Your task to perform on an android device: add a contact Image 0: 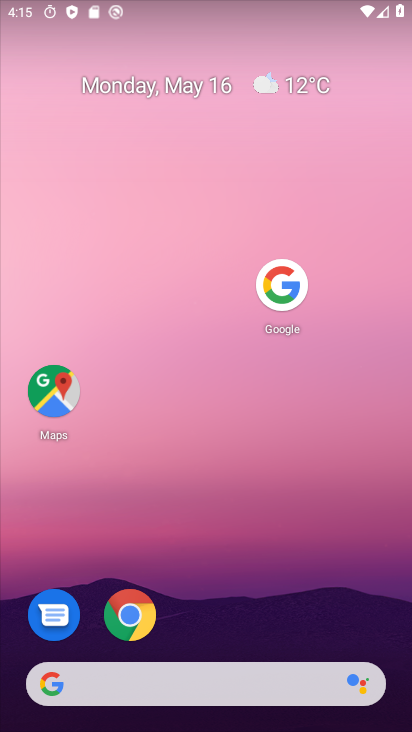
Step 0: drag from (216, 642) to (197, 67)
Your task to perform on an android device: add a contact Image 1: 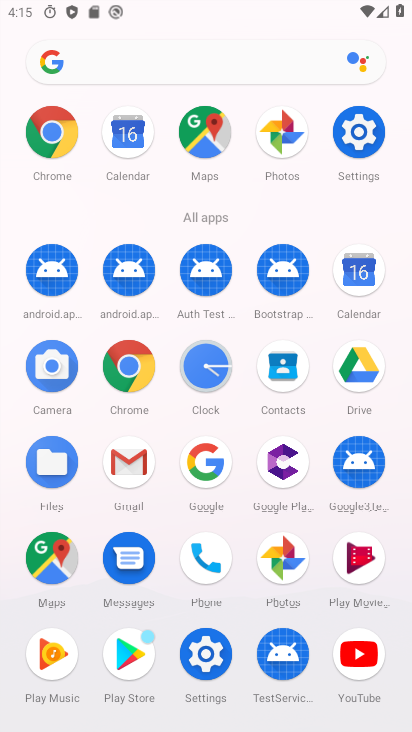
Step 1: click (210, 553)
Your task to perform on an android device: add a contact Image 2: 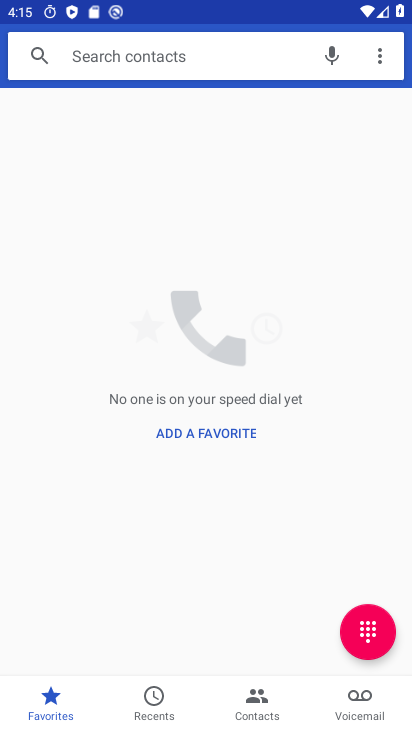
Step 2: click (245, 695)
Your task to perform on an android device: add a contact Image 3: 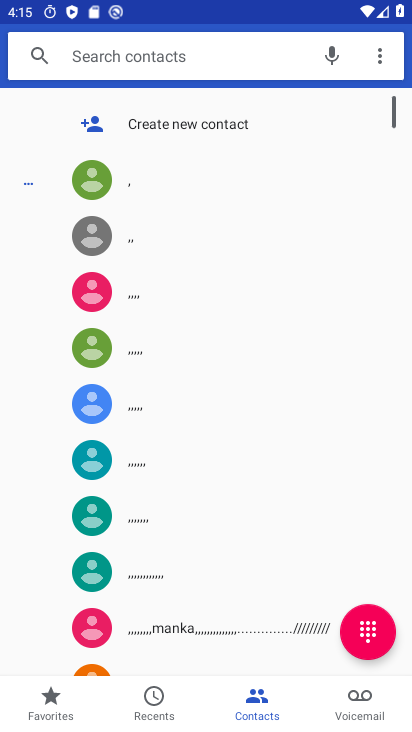
Step 3: click (116, 100)
Your task to perform on an android device: add a contact Image 4: 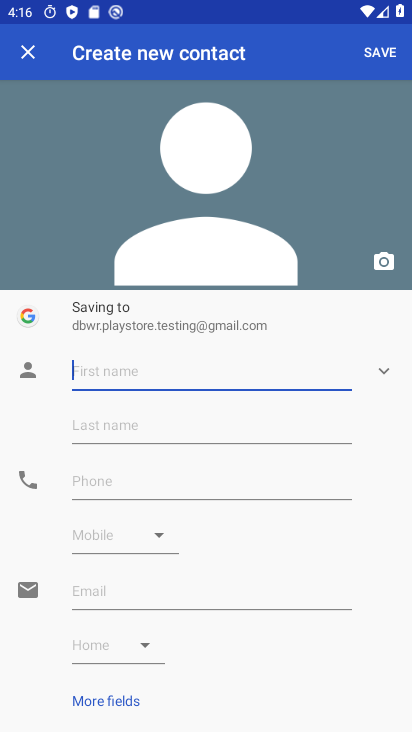
Step 4: type "kio"
Your task to perform on an android device: add a contact Image 5: 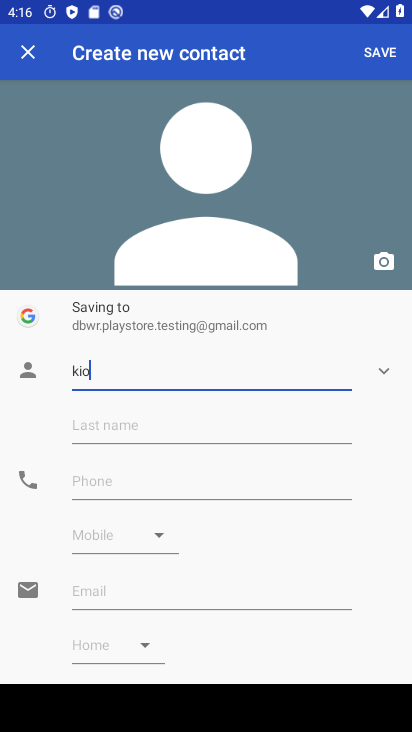
Step 5: click (105, 486)
Your task to perform on an android device: add a contact Image 6: 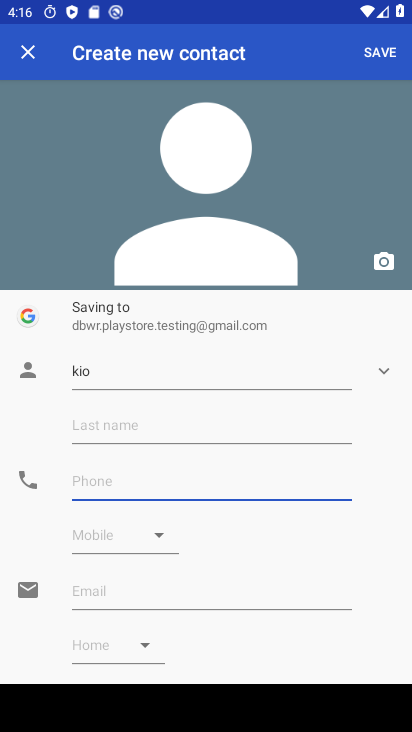
Step 6: type "5"
Your task to perform on an android device: add a contact Image 7: 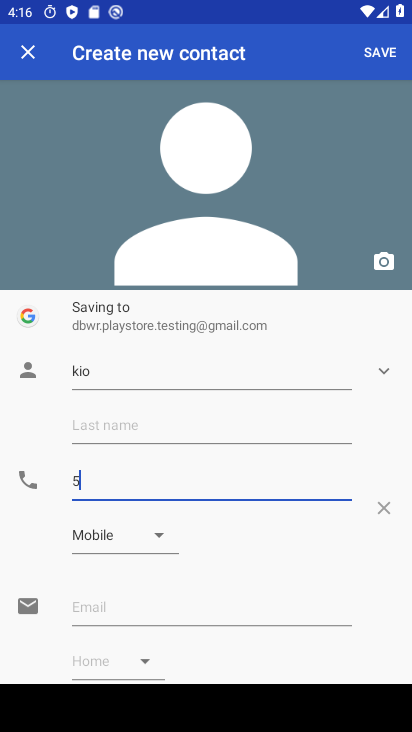
Step 7: type ""
Your task to perform on an android device: add a contact Image 8: 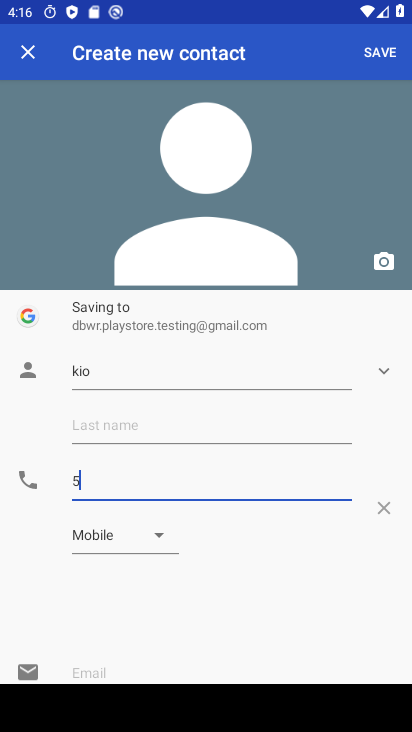
Step 8: click (378, 44)
Your task to perform on an android device: add a contact Image 9: 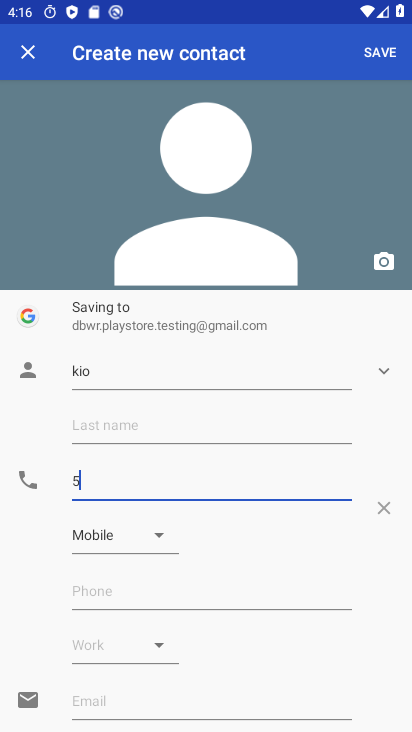
Step 9: task complete